Your task to perform on an android device: What's on my calendar today? Image 0: 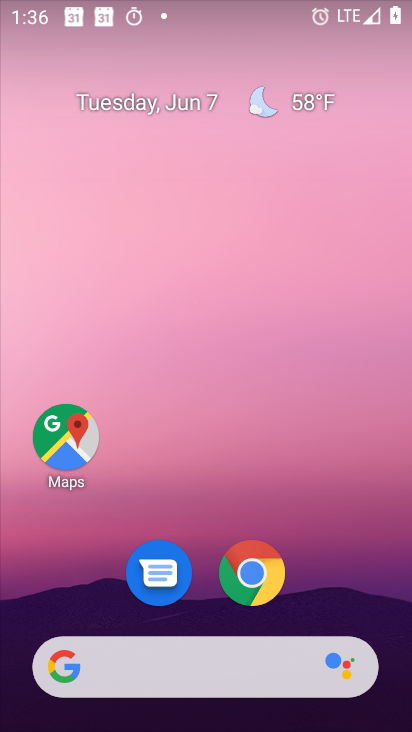
Step 0: drag from (341, 560) to (286, 34)
Your task to perform on an android device: What's on my calendar today? Image 1: 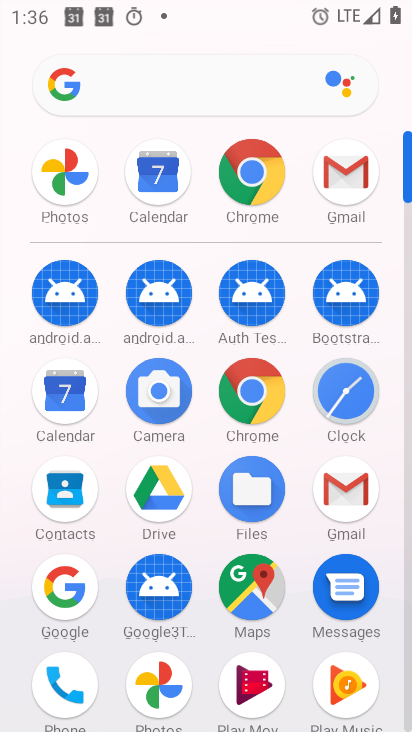
Step 1: click (55, 386)
Your task to perform on an android device: What's on my calendar today? Image 2: 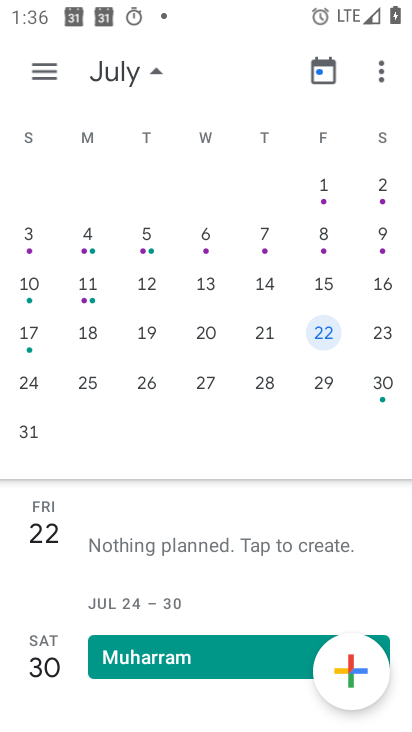
Step 2: drag from (63, 294) to (410, 298)
Your task to perform on an android device: What's on my calendar today? Image 3: 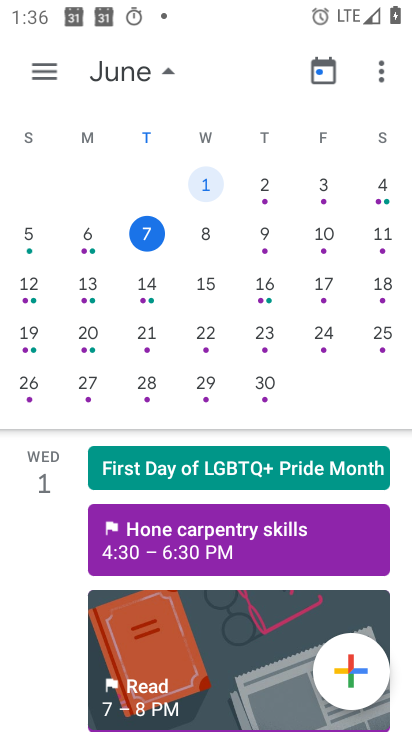
Step 3: click (140, 229)
Your task to perform on an android device: What's on my calendar today? Image 4: 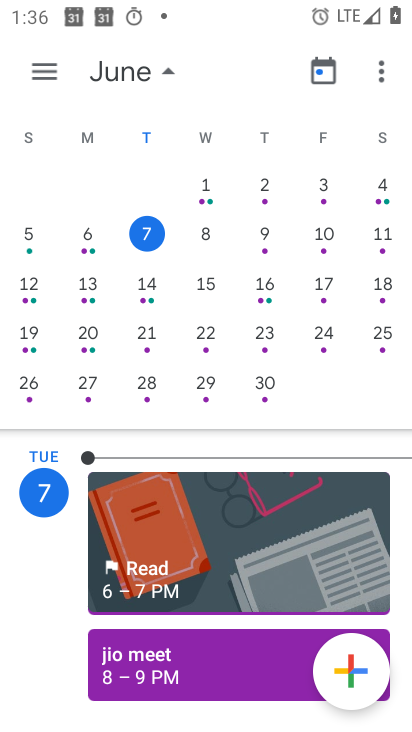
Step 4: task complete